Your task to perform on an android device: set the timer Image 0: 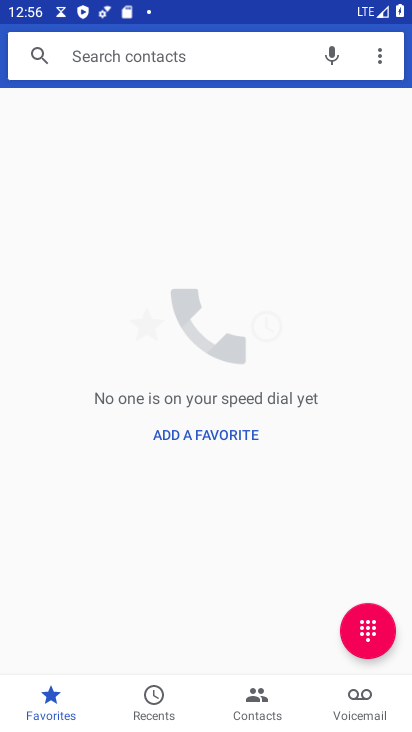
Step 0: press home button
Your task to perform on an android device: set the timer Image 1: 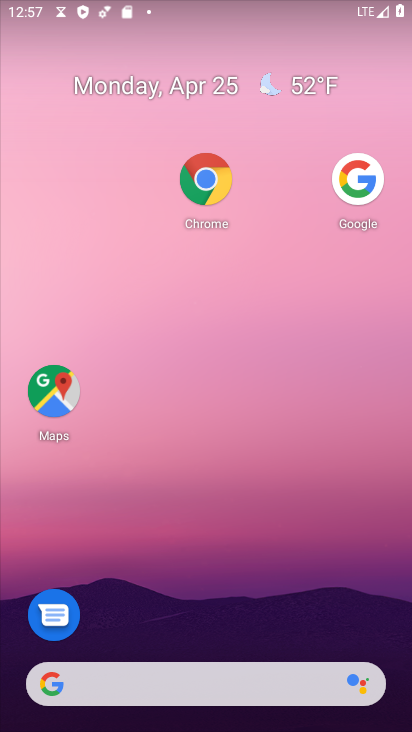
Step 1: drag from (192, 677) to (379, 209)
Your task to perform on an android device: set the timer Image 2: 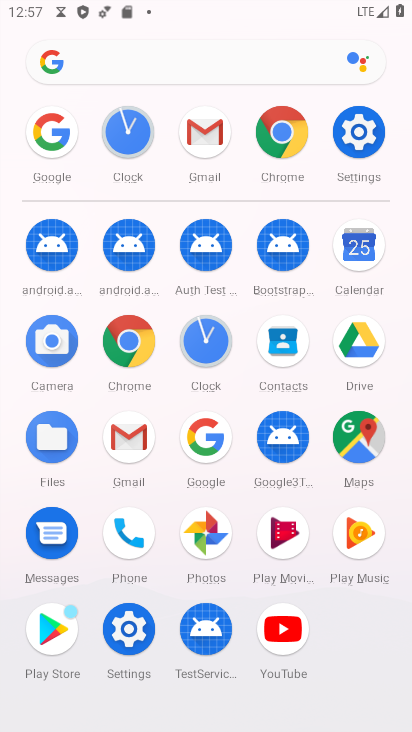
Step 2: click (210, 350)
Your task to perform on an android device: set the timer Image 3: 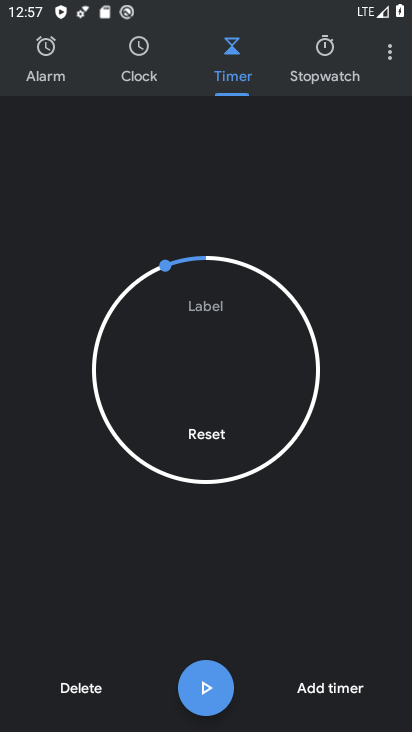
Step 3: click (79, 694)
Your task to perform on an android device: set the timer Image 4: 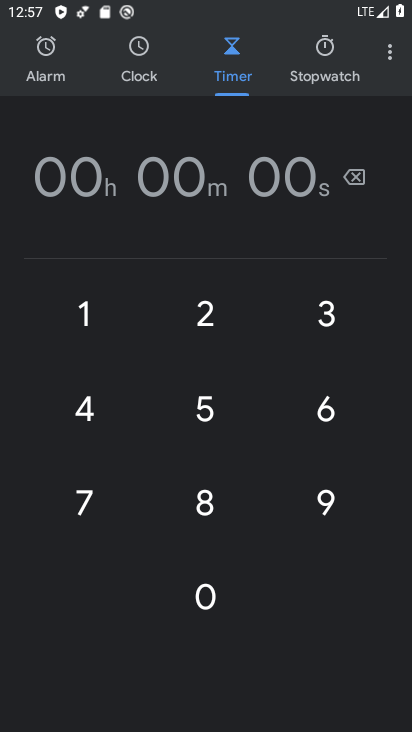
Step 4: click (81, 317)
Your task to perform on an android device: set the timer Image 5: 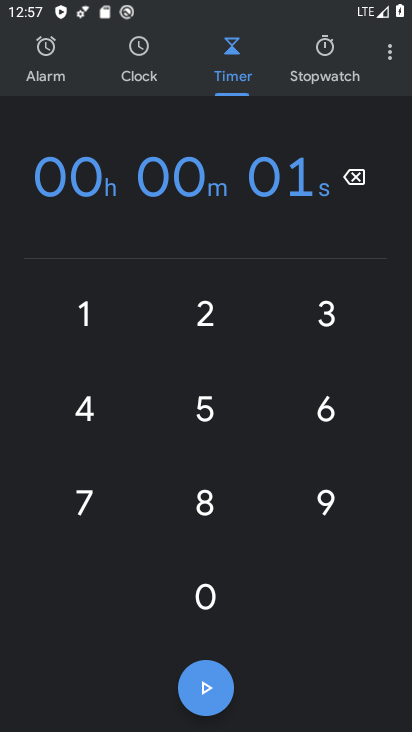
Step 5: click (321, 416)
Your task to perform on an android device: set the timer Image 6: 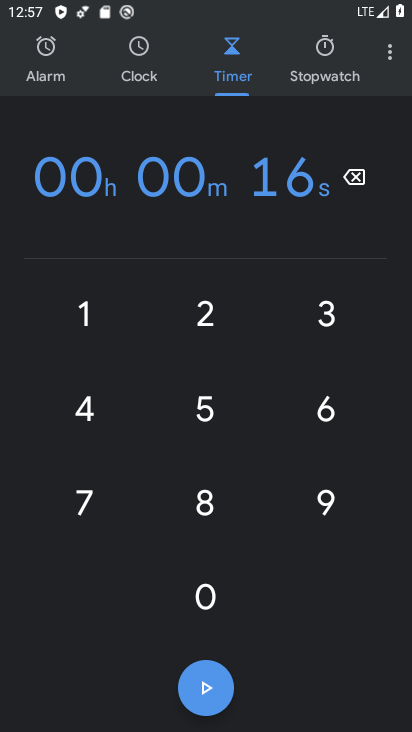
Step 6: click (213, 686)
Your task to perform on an android device: set the timer Image 7: 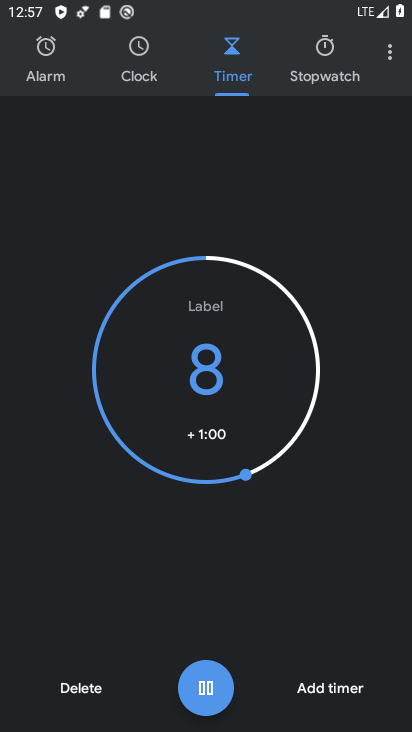
Step 7: click (197, 694)
Your task to perform on an android device: set the timer Image 8: 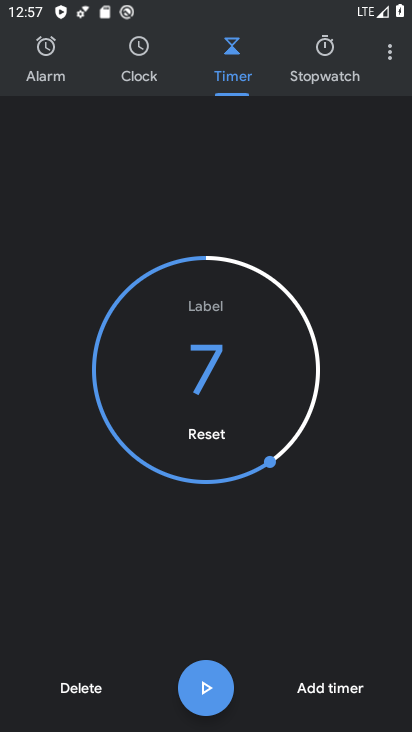
Step 8: task complete